Your task to perform on an android device: Go to sound settings Image 0: 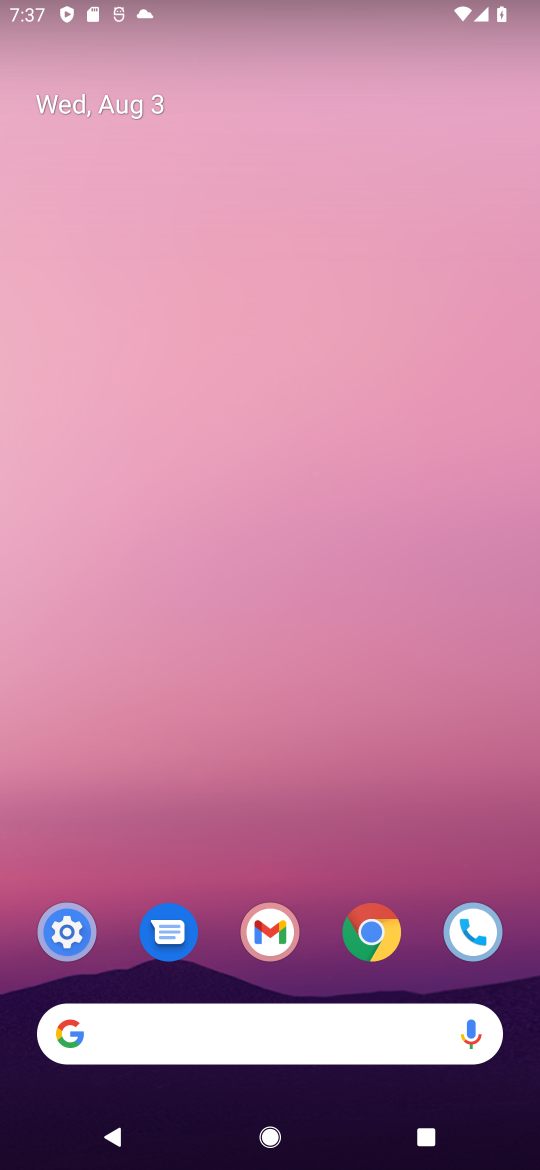
Step 0: click (44, 937)
Your task to perform on an android device: Go to sound settings Image 1: 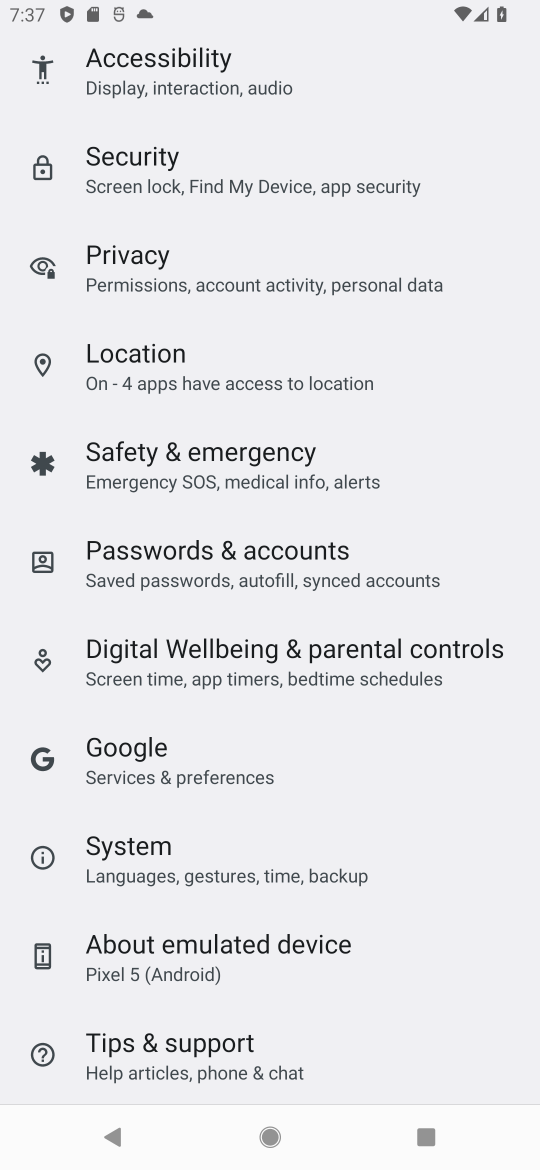
Step 1: drag from (340, 146) to (289, 978)
Your task to perform on an android device: Go to sound settings Image 2: 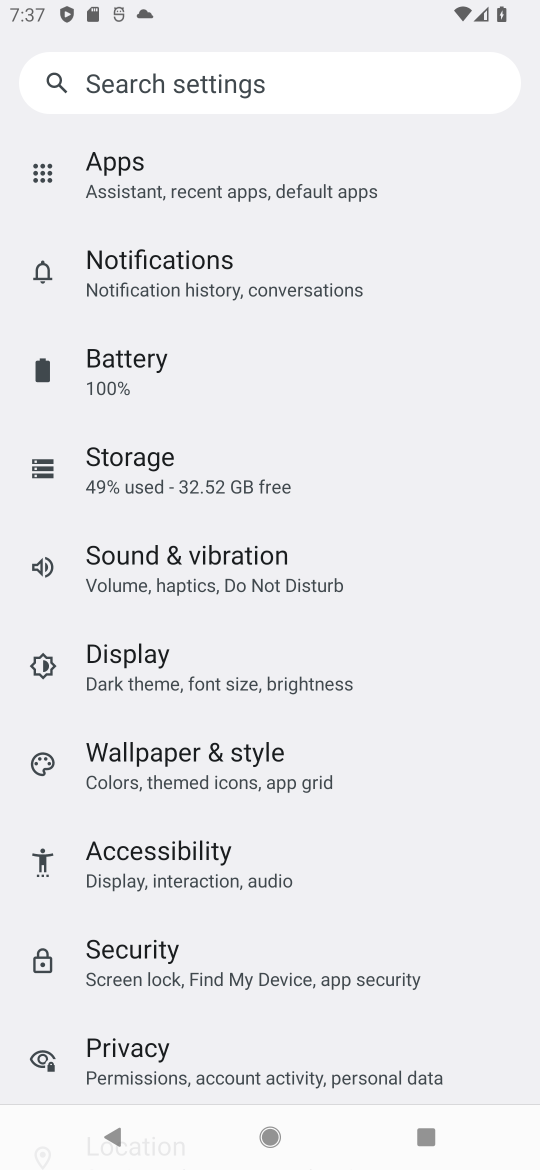
Step 2: click (222, 574)
Your task to perform on an android device: Go to sound settings Image 3: 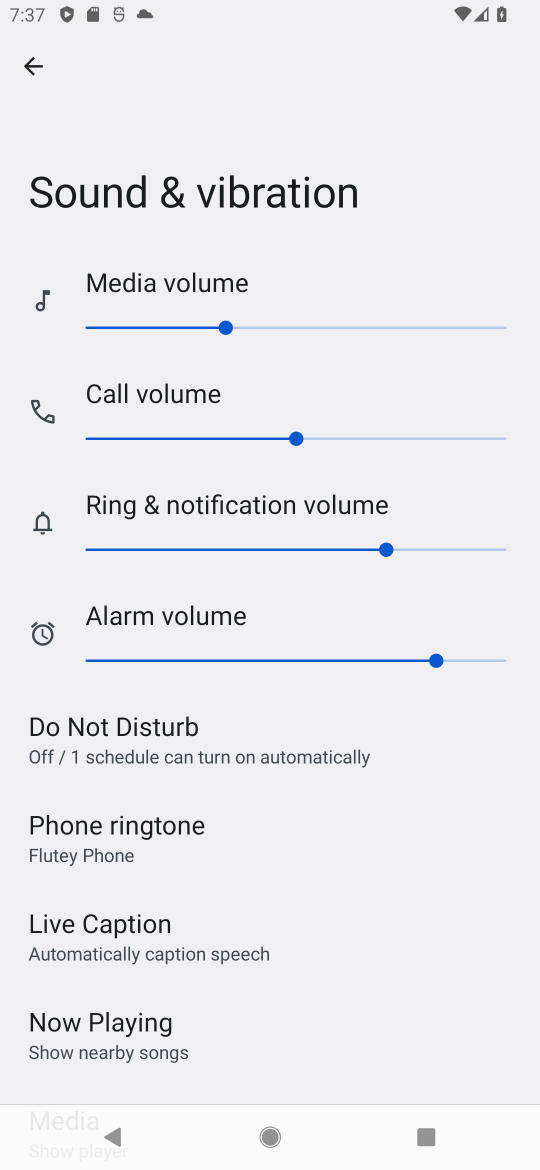
Step 3: task complete